Your task to perform on an android device: turn off sleep mode Image 0: 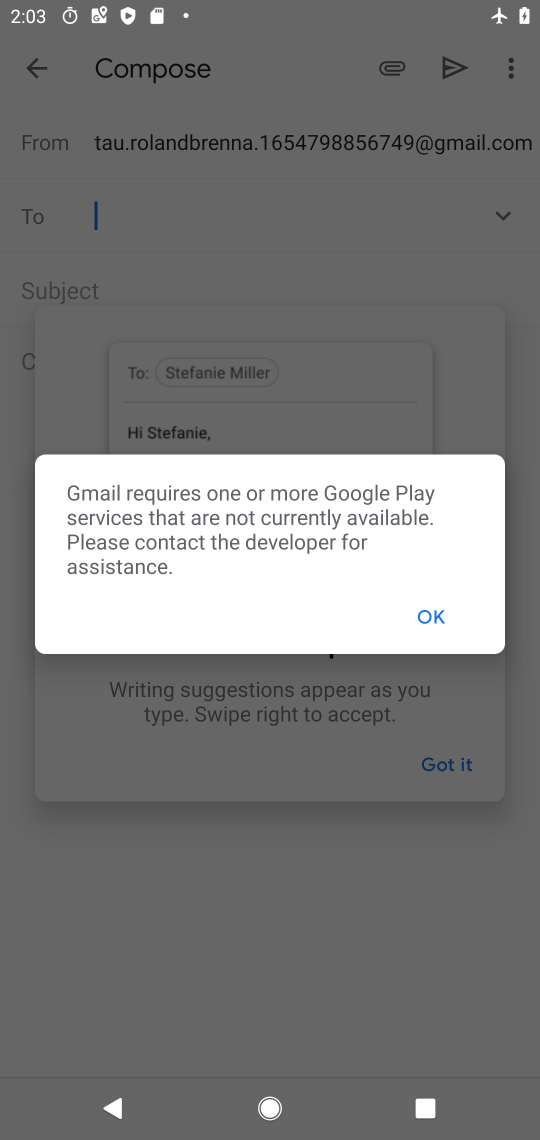
Step 0: press home button
Your task to perform on an android device: turn off sleep mode Image 1: 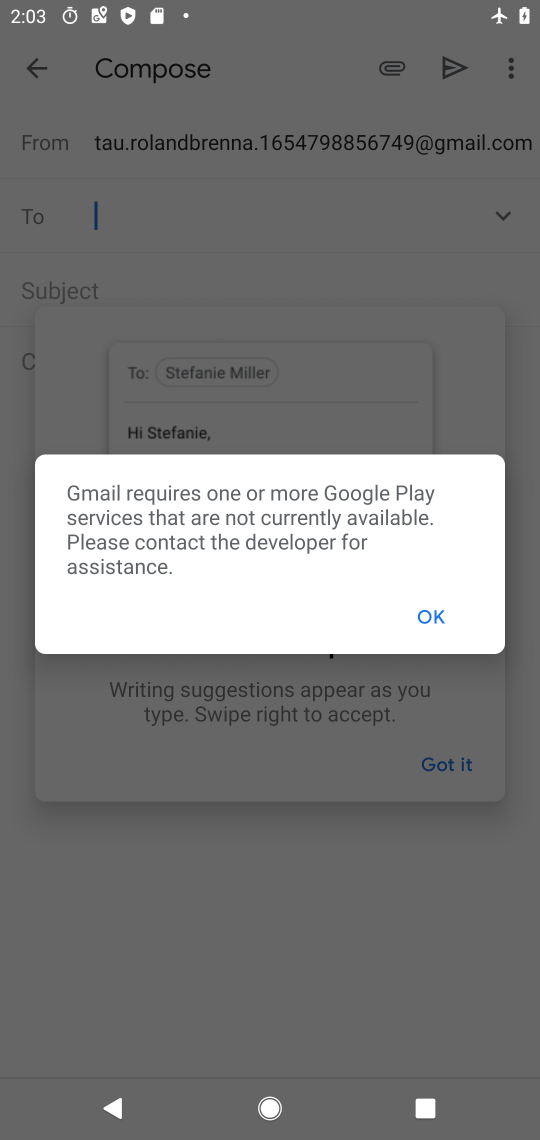
Step 1: press home button
Your task to perform on an android device: turn off sleep mode Image 2: 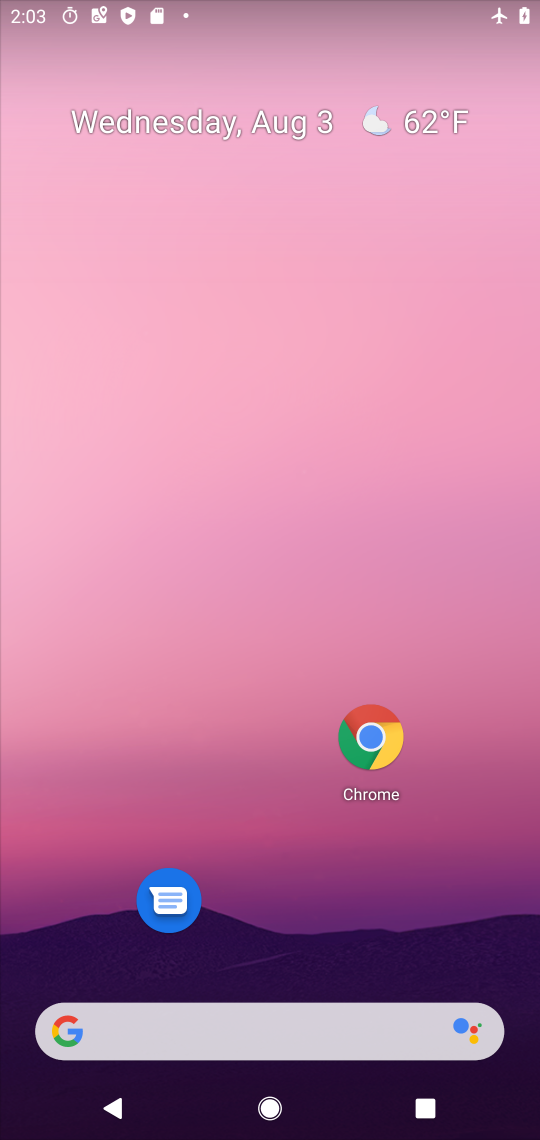
Step 2: drag from (290, 885) to (325, 88)
Your task to perform on an android device: turn off sleep mode Image 3: 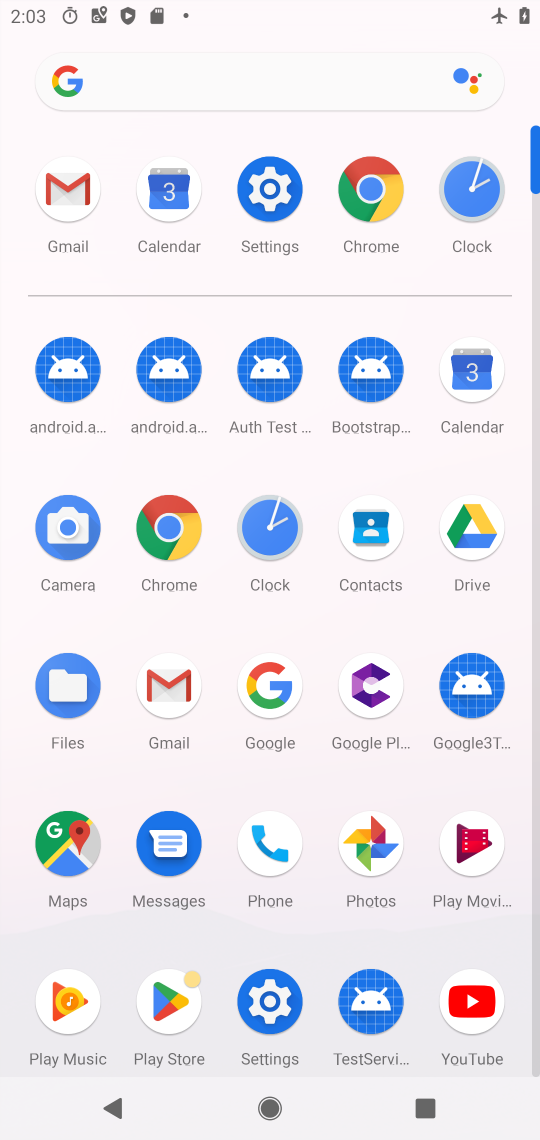
Step 3: click (265, 185)
Your task to perform on an android device: turn off sleep mode Image 4: 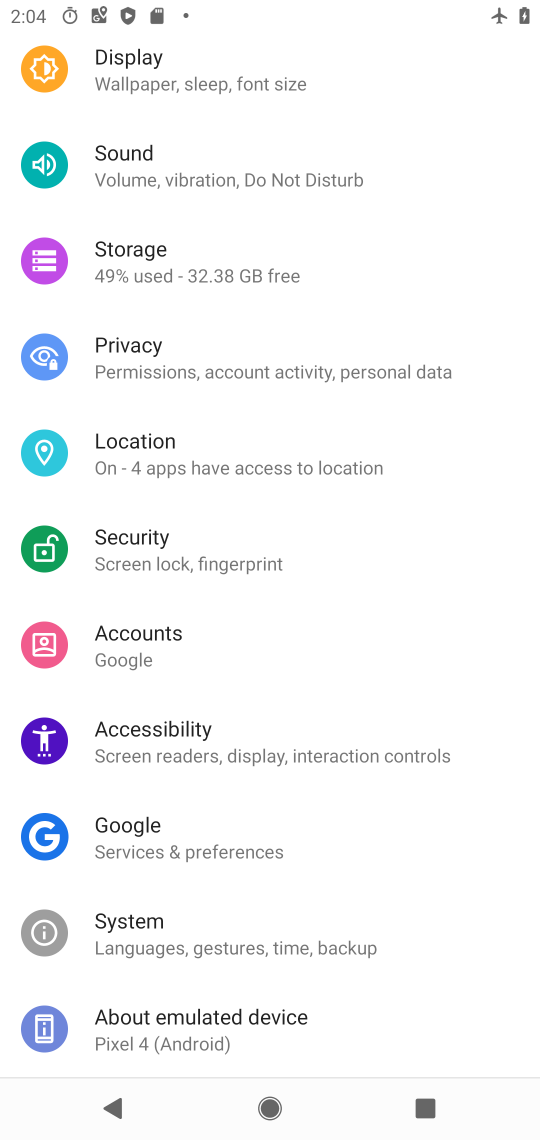
Step 4: click (194, 74)
Your task to perform on an android device: turn off sleep mode Image 5: 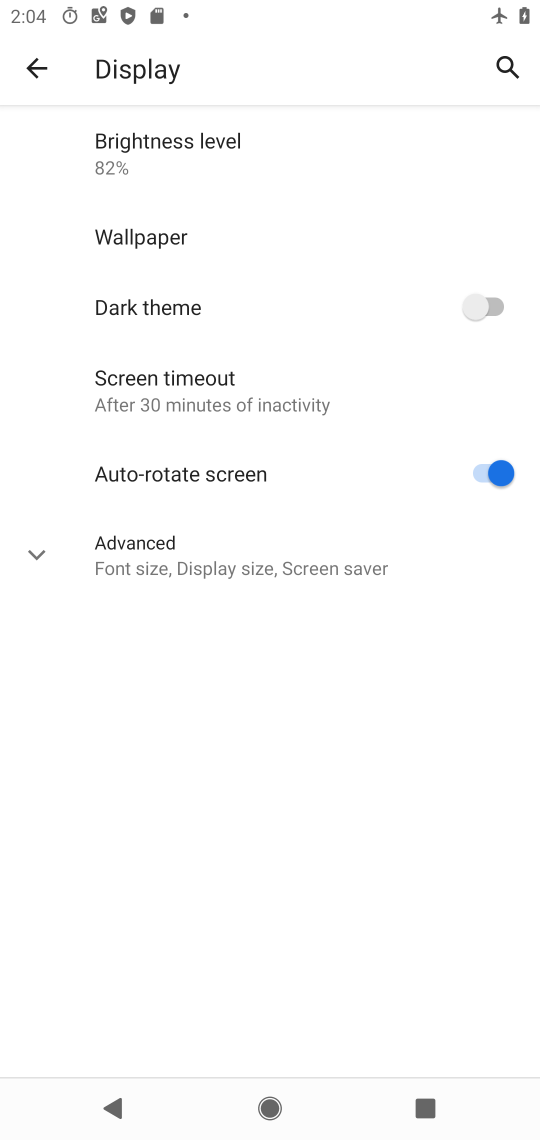
Step 5: click (239, 383)
Your task to perform on an android device: turn off sleep mode Image 6: 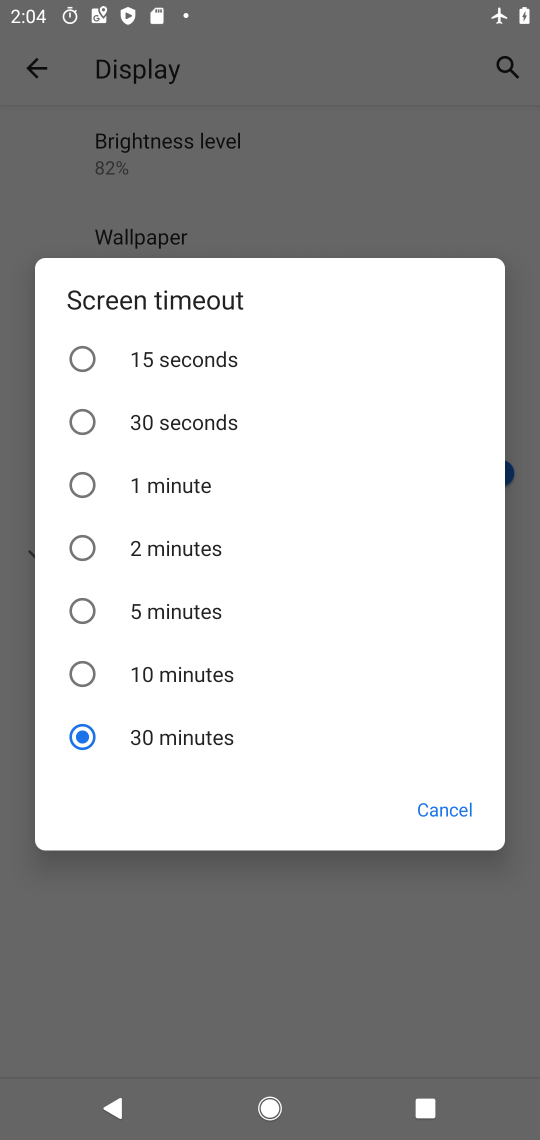
Step 6: task complete